Your task to perform on an android device: Turn on the flashlight Image 0: 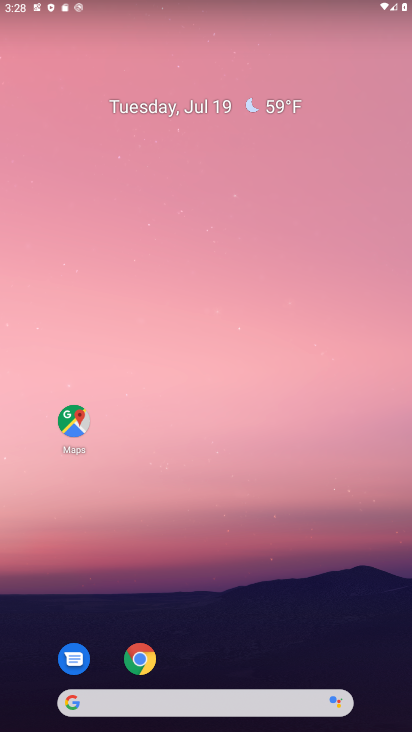
Step 0: drag from (189, 699) to (295, 95)
Your task to perform on an android device: Turn on the flashlight Image 1: 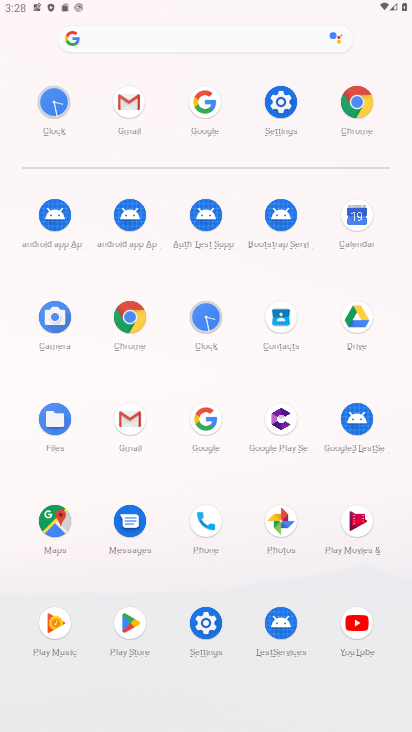
Step 1: click (281, 103)
Your task to perform on an android device: Turn on the flashlight Image 2: 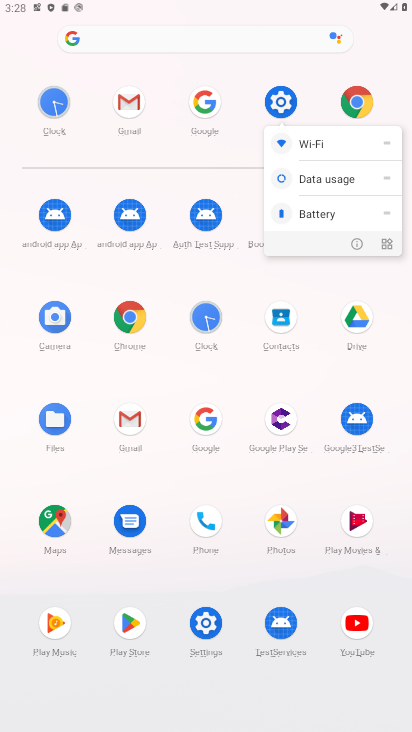
Step 2: click (281, 103)
Your task to perform on an android device: Turn on the flashlight Image 3: 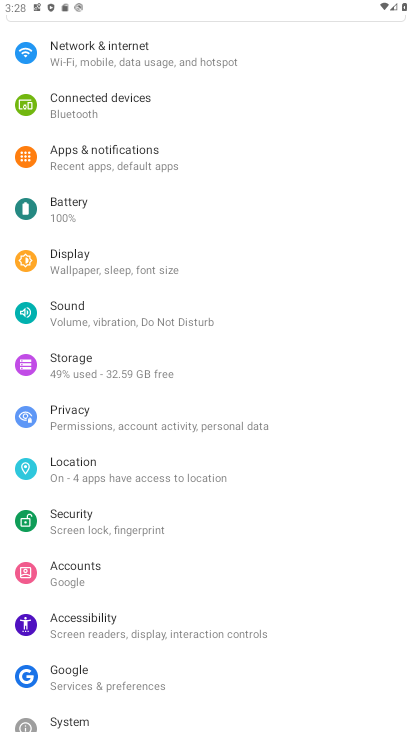
Step 3: drag from (133, 659) to (154, 517)
Your task to perform on an android device: Turn on the flashlight Image 4: 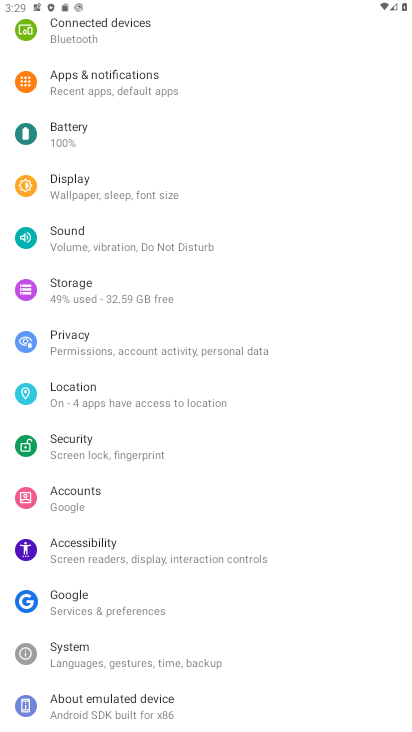
Step 4: drag from (107, 266) to (147, 394)
Your task to perform on an android device: Turn on the flashlight Image 5: 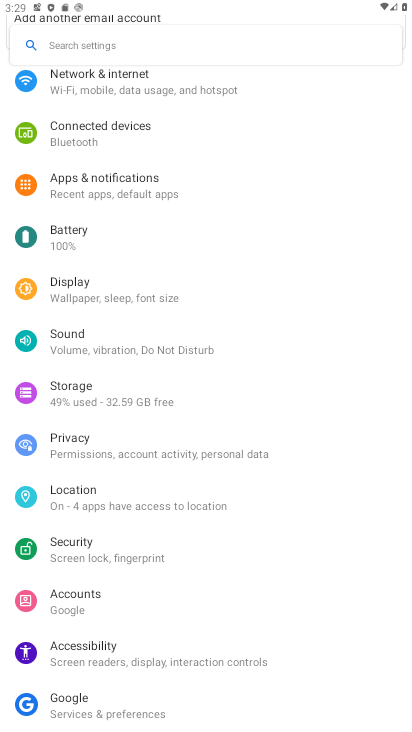
Step 5: click (154, 189)
Your task to perform on an android device: Turn on the flashlight Image 6: 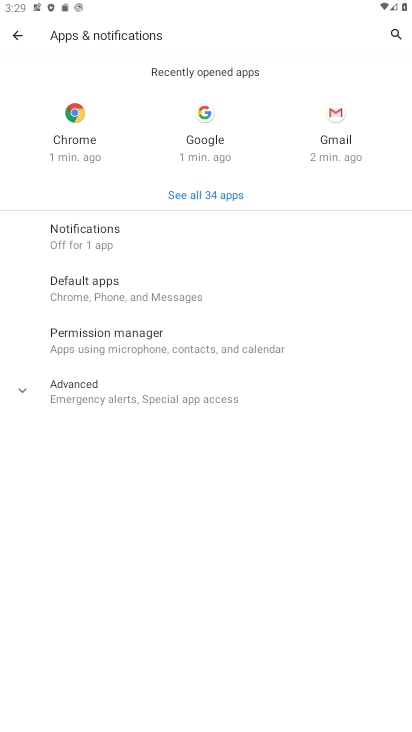
Step 6: press back button
Your task to perform on an android device: Turn on the flashlight Image 7: 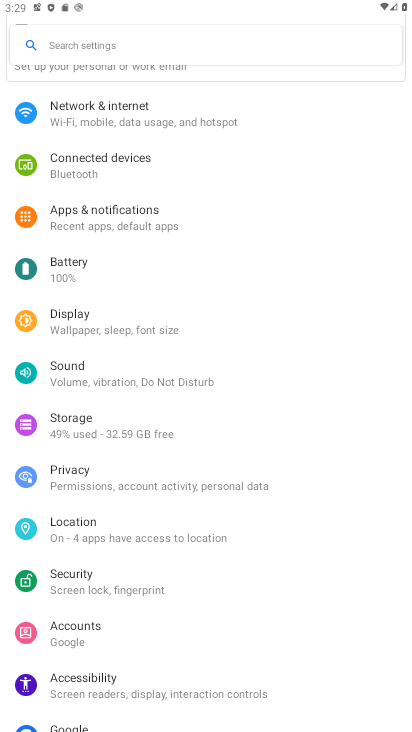
Step 7: click (84, 328)
Your task to perform on an android device: Turn on the flashlight Image 8: 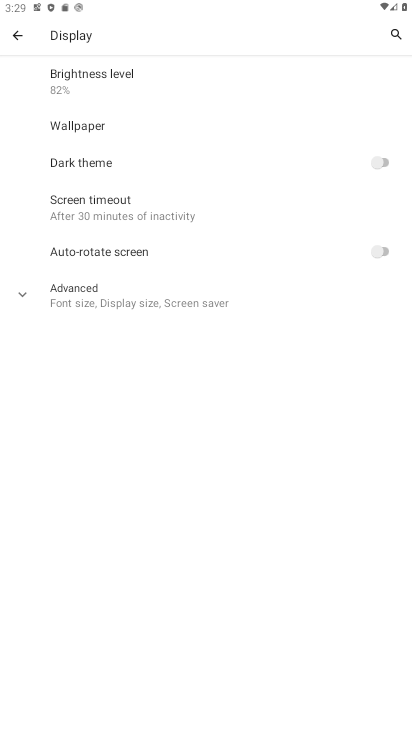
Step 8: task complete